Your task to perform on an android device: check battery use Image 0: 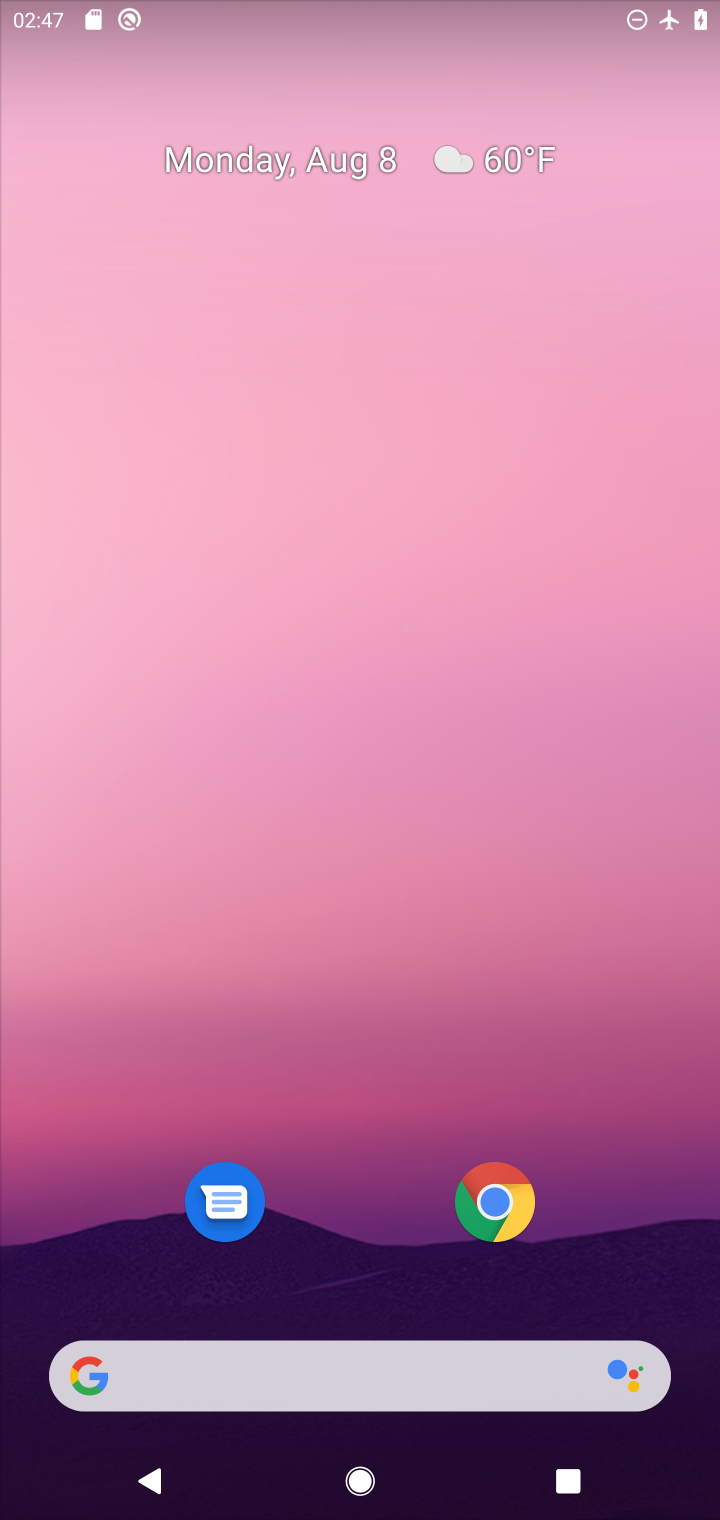
Step 0: press home button
Your task to perform on an android device: check battery use Image 1: 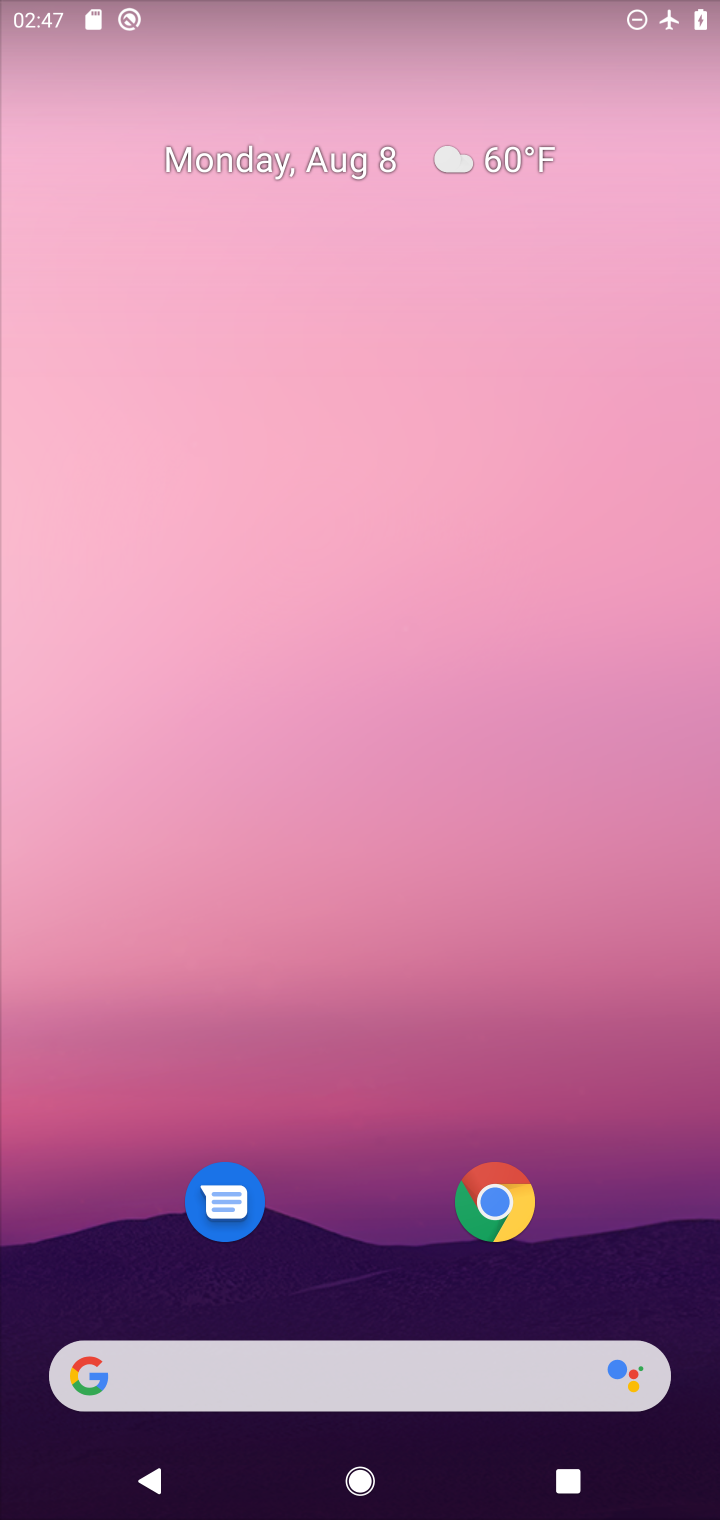
Step 1: drag from (622, 1010) to (653, 297)
Your task to perform on an android device: check battery use Image 2: 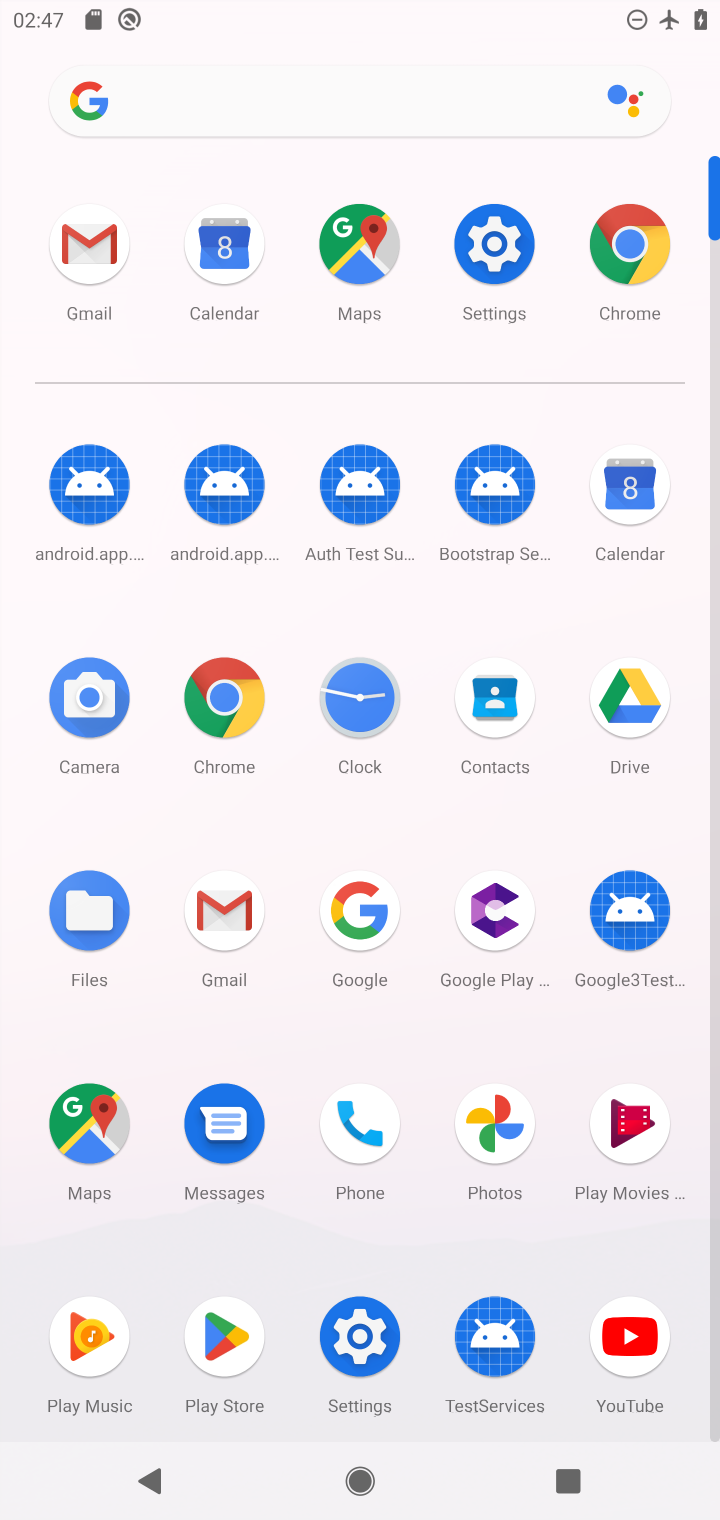
Step 2: click (470, 233)
Your task to perform on an android device: check battery use Image 3: 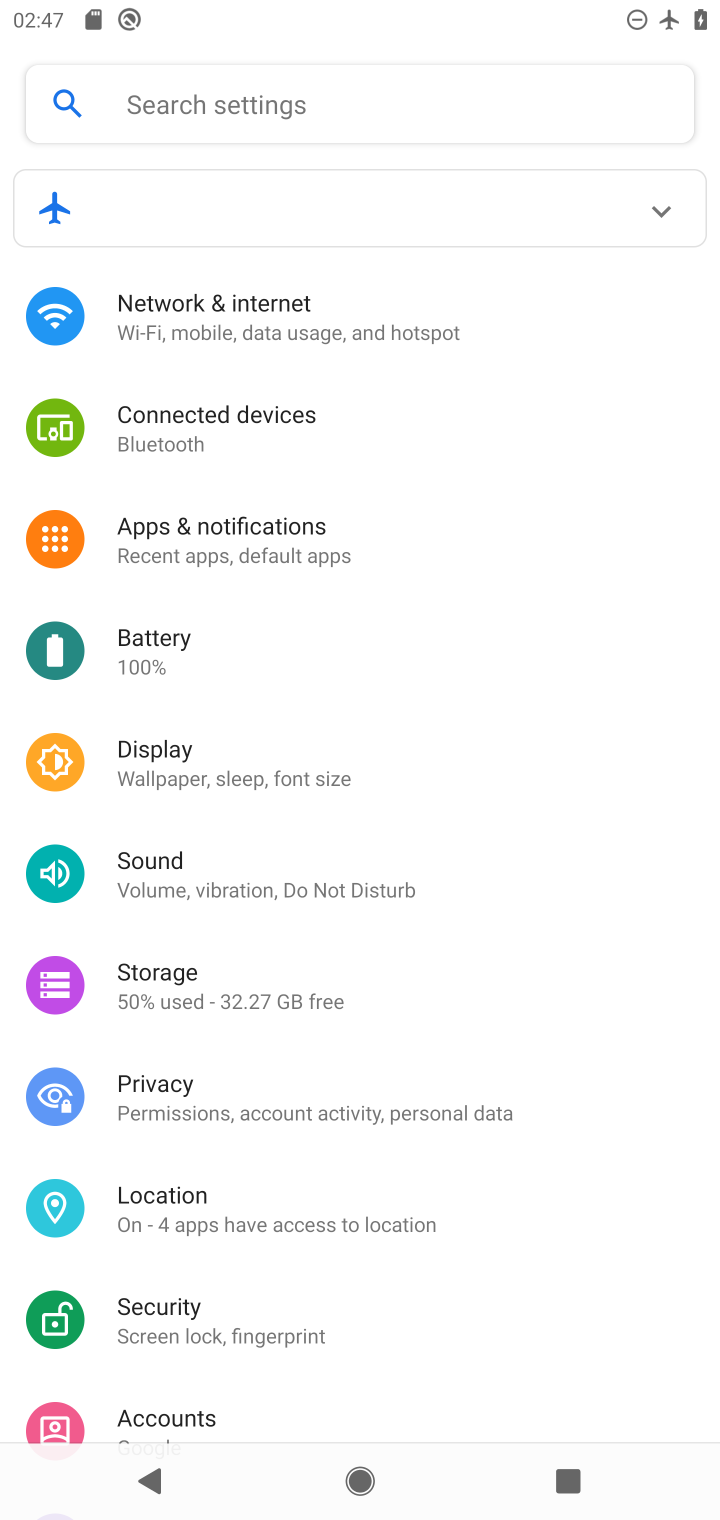
Step 3: drag from (580, 592) to (583, 458)
Your task to perform on an android device: check battery use Image 4: 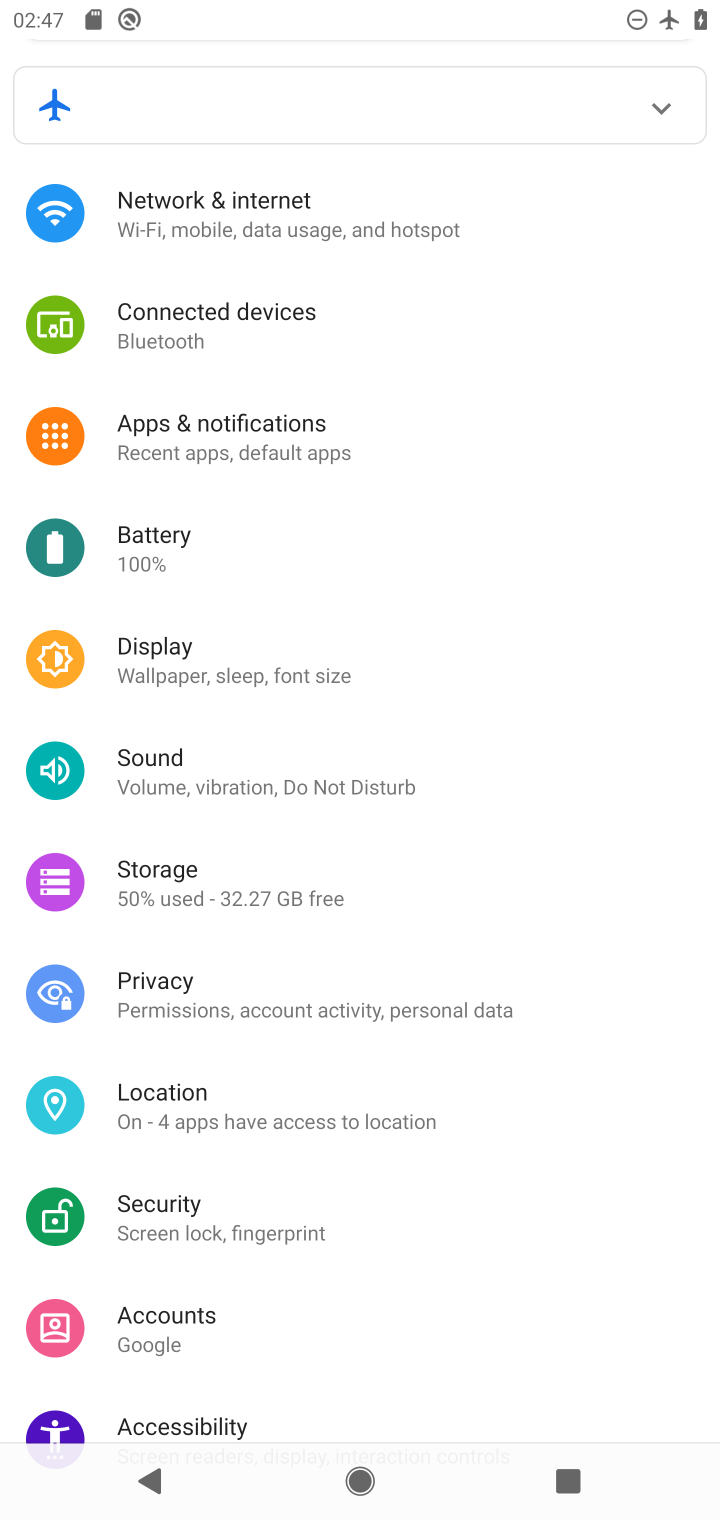
Step 4: drag from (590, 634) to (616, 447)
Your task to perform on an android device: check battery use Image 5: 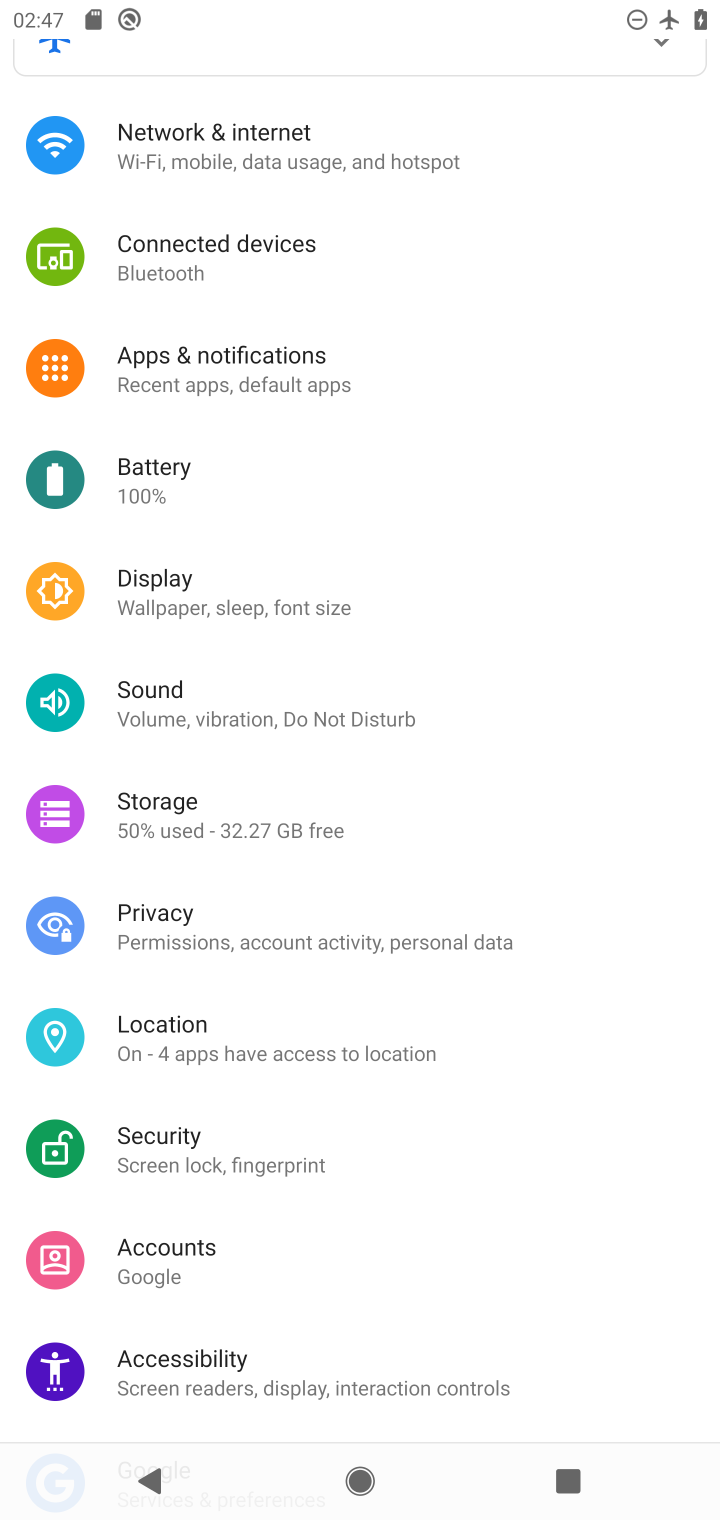
Step 5: drag from (571, 772) to (603, 234)
Your task to perform on an android device: check battery use Image 6: 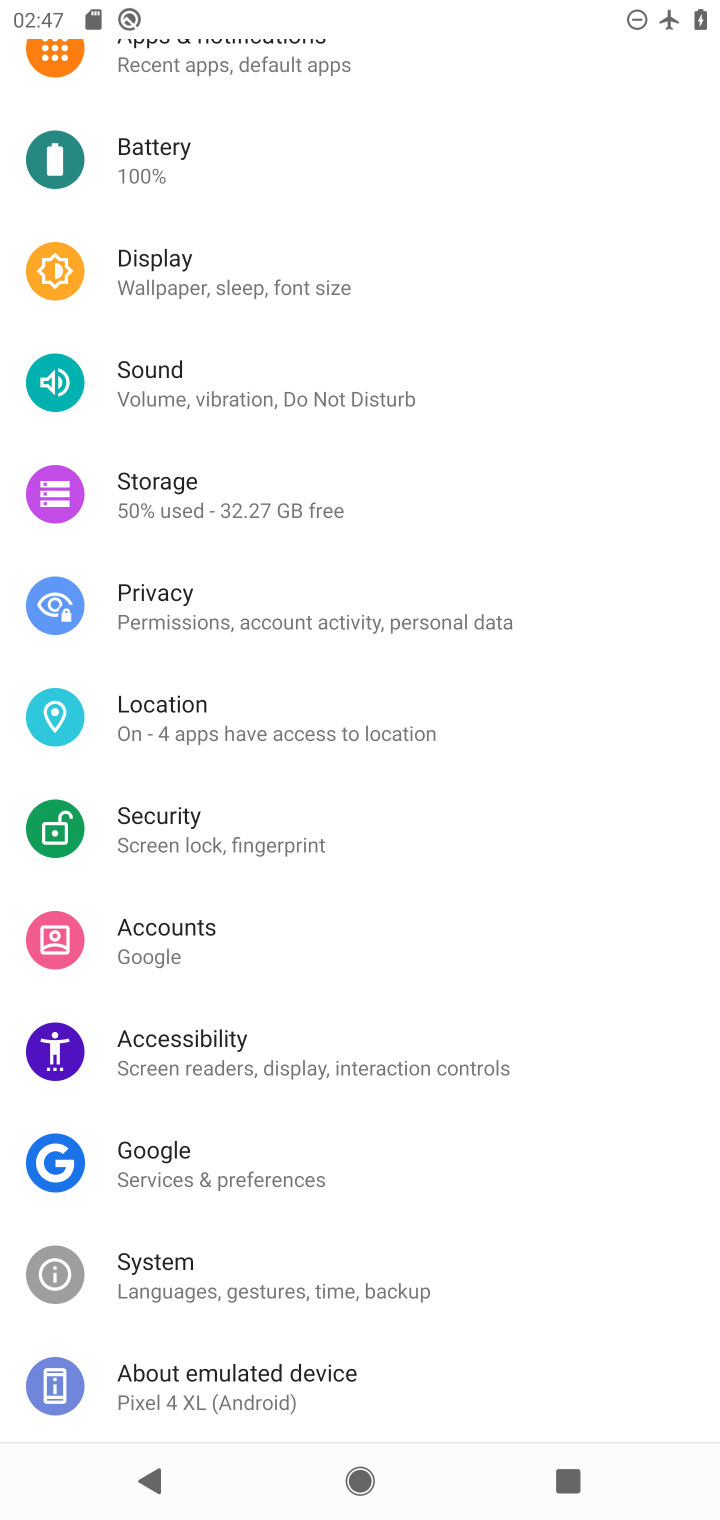
Step 6: drag from (579, 369) to (587, 152)
Your task to perform on an android device: check battery use Image 7: 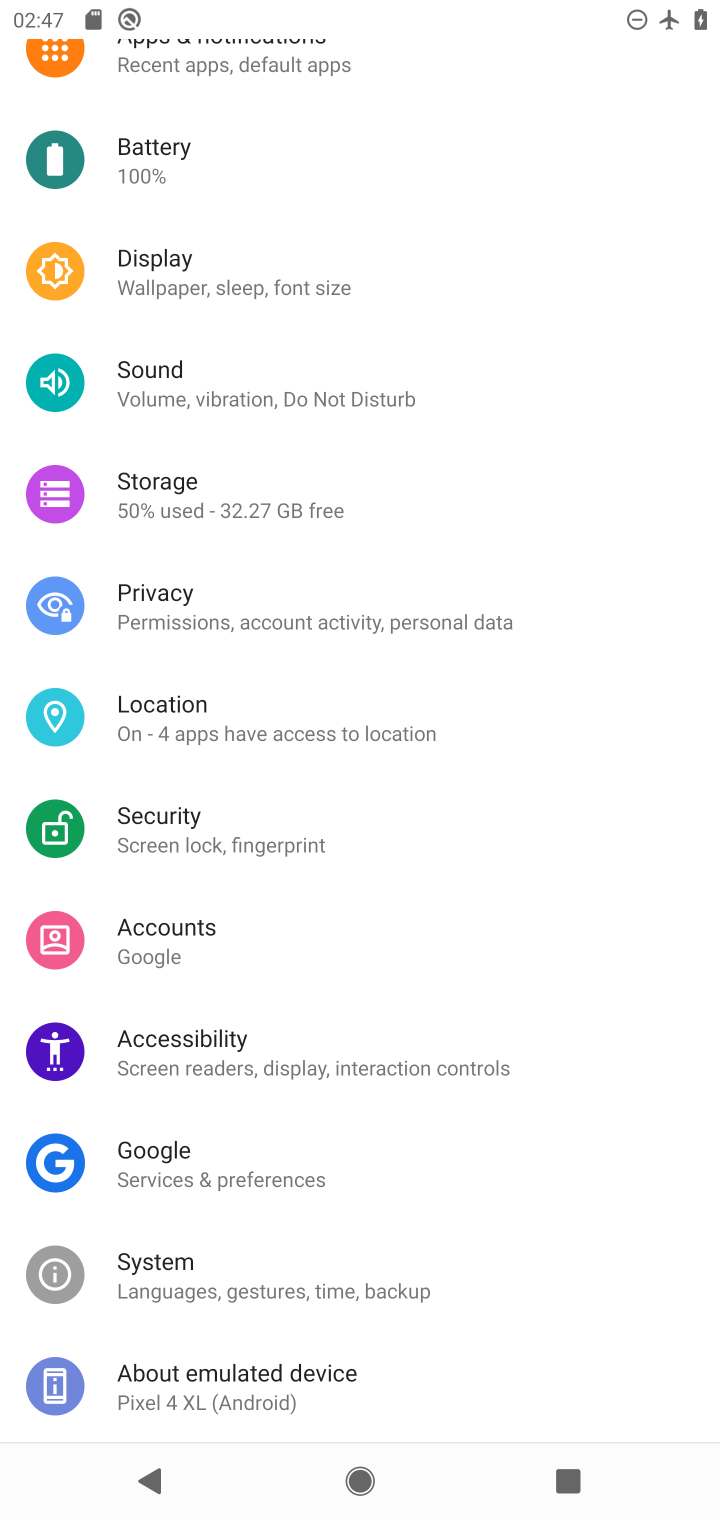
Step 7: drag from (640, 357) to (634, 722)
Your task to perform on an android device: check battery use Image 8: 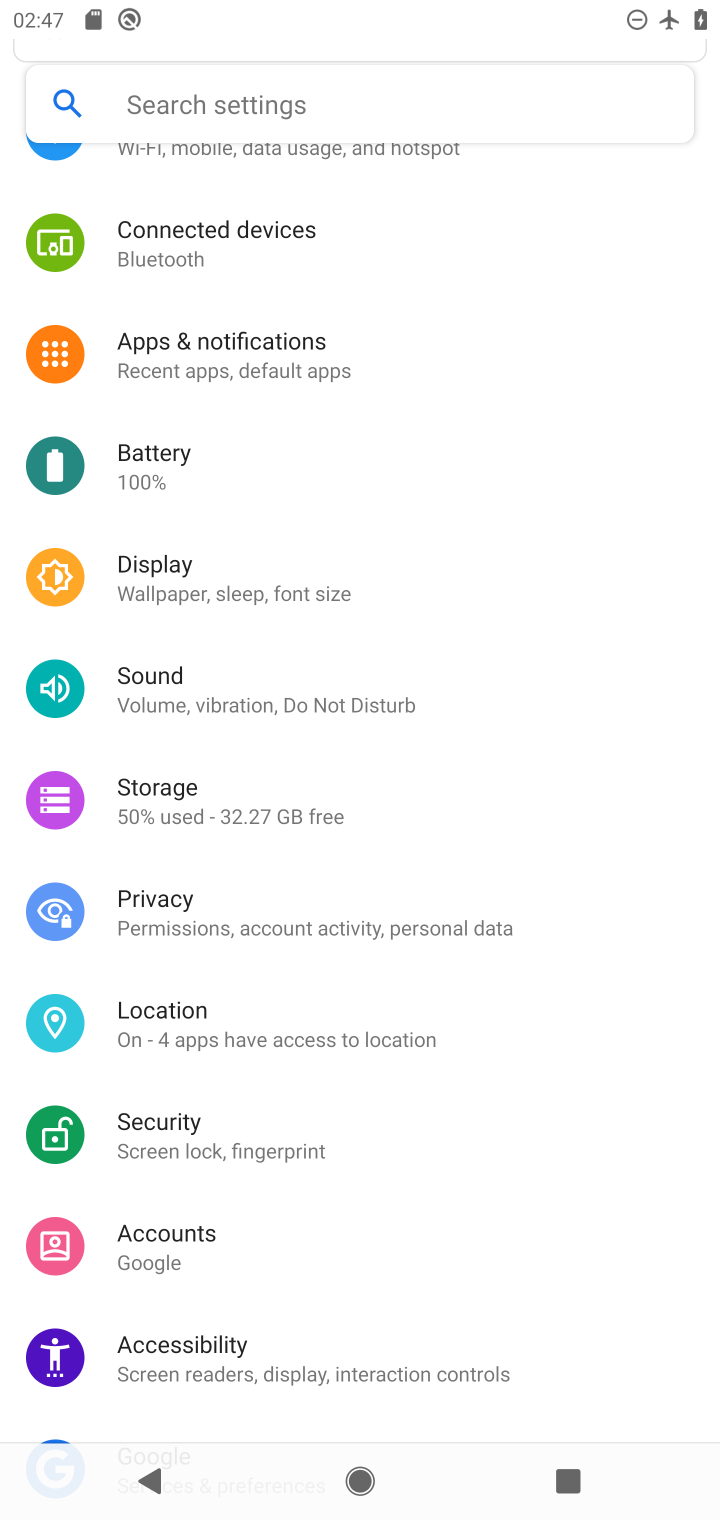
Step 8: drag from (600, 285) to (622, 667)
Your task to perform on an android device: check battery use Image 9: 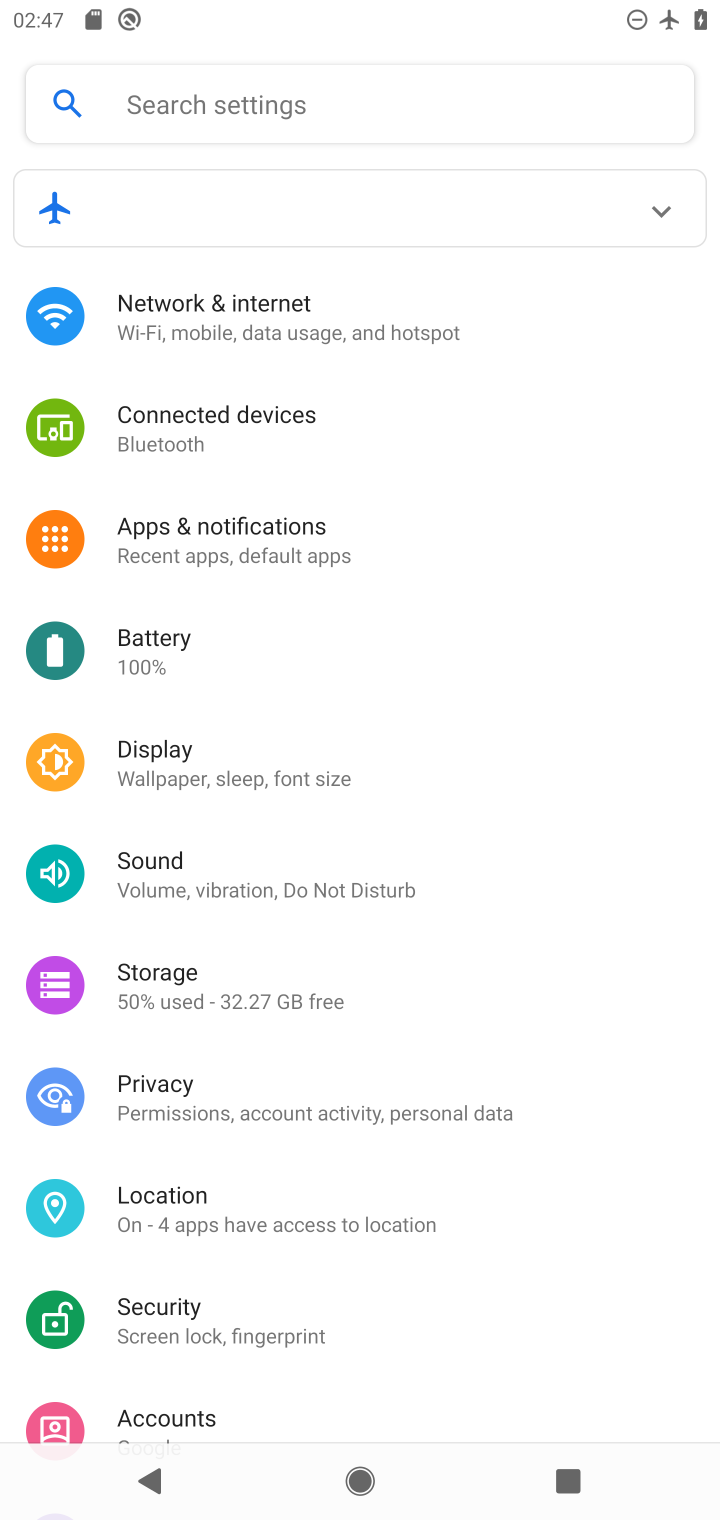
Step 9: click (290, 651)
Your task to perform on an android device: check battery use Image 10: 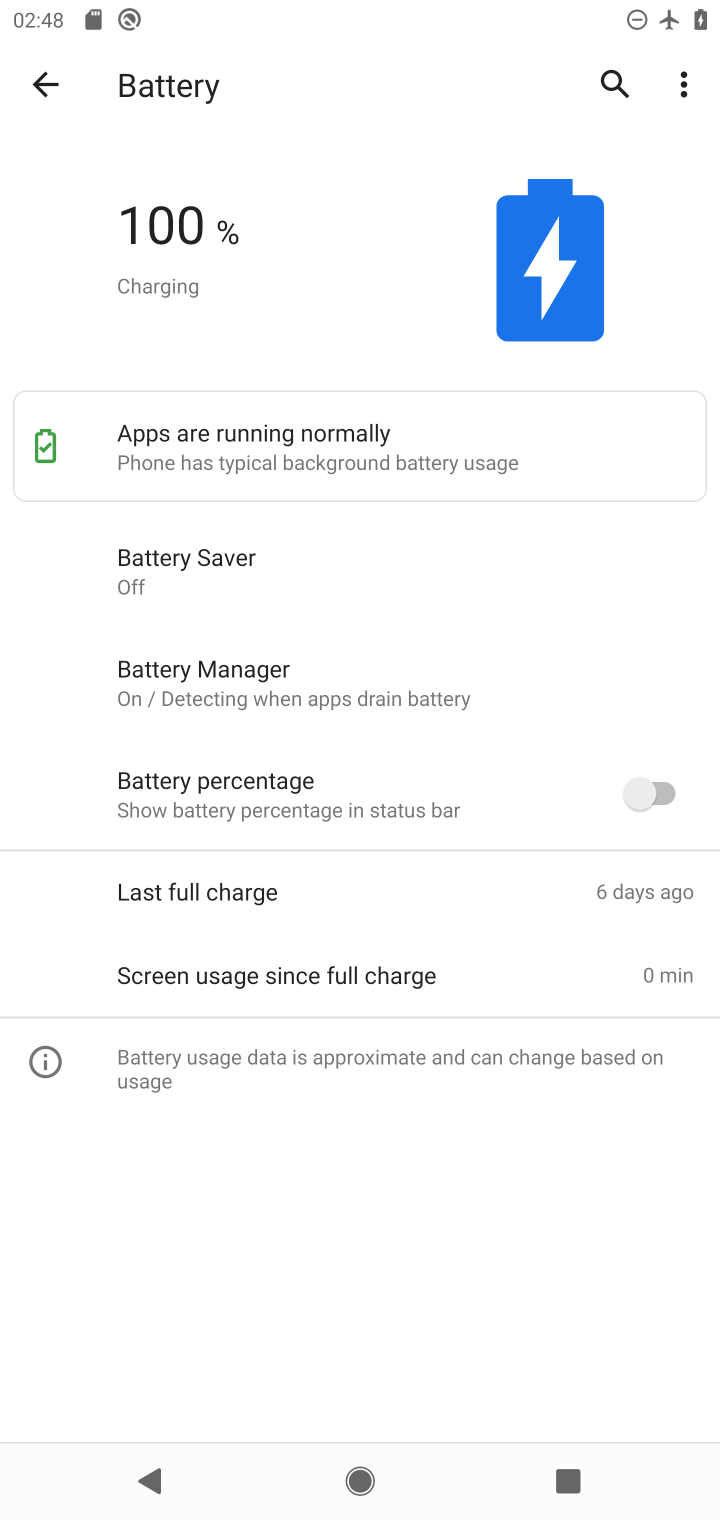
Step 10: click (676, 87)
Your task to perform on an android device: check battery use Image 11: 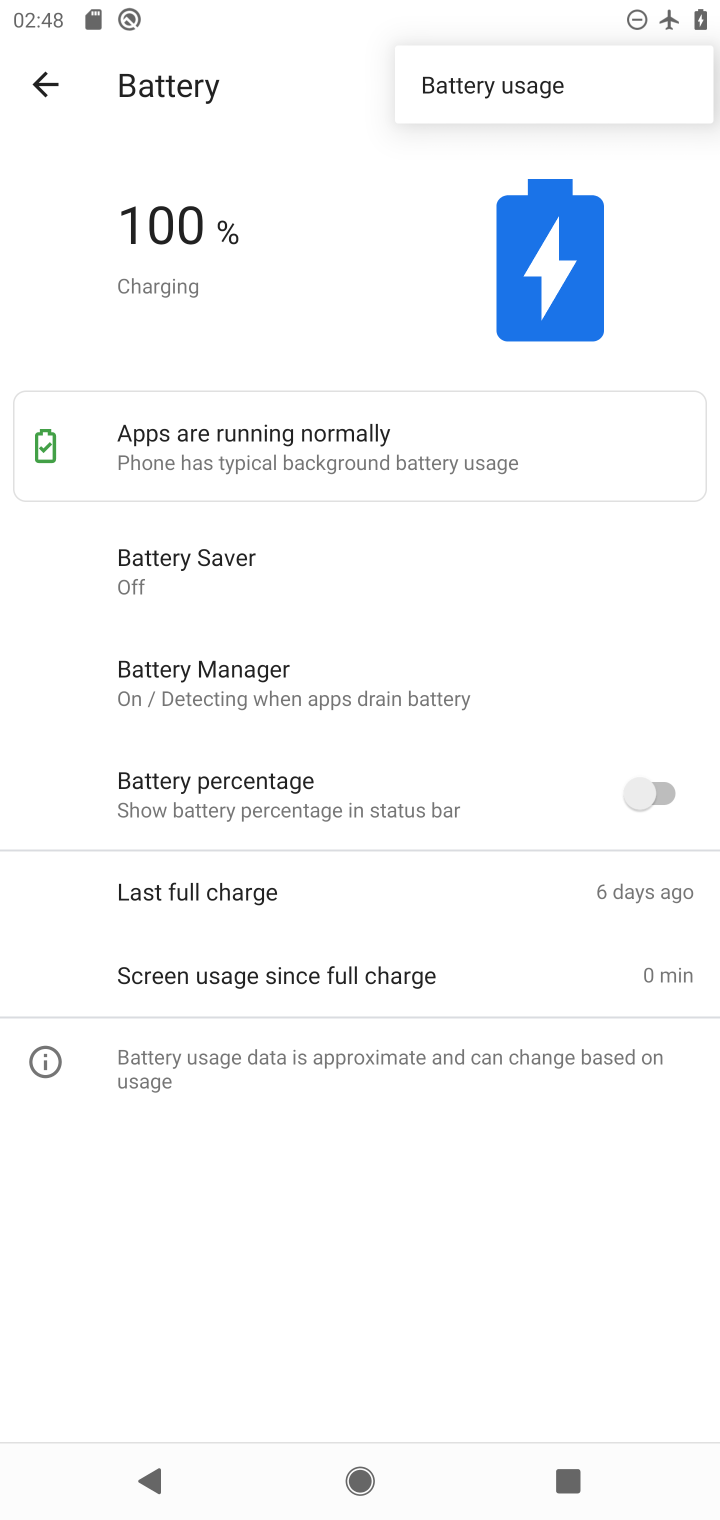
Step 11: click (542, 86)
Your task to perform on an android device: check battery use Image 12: 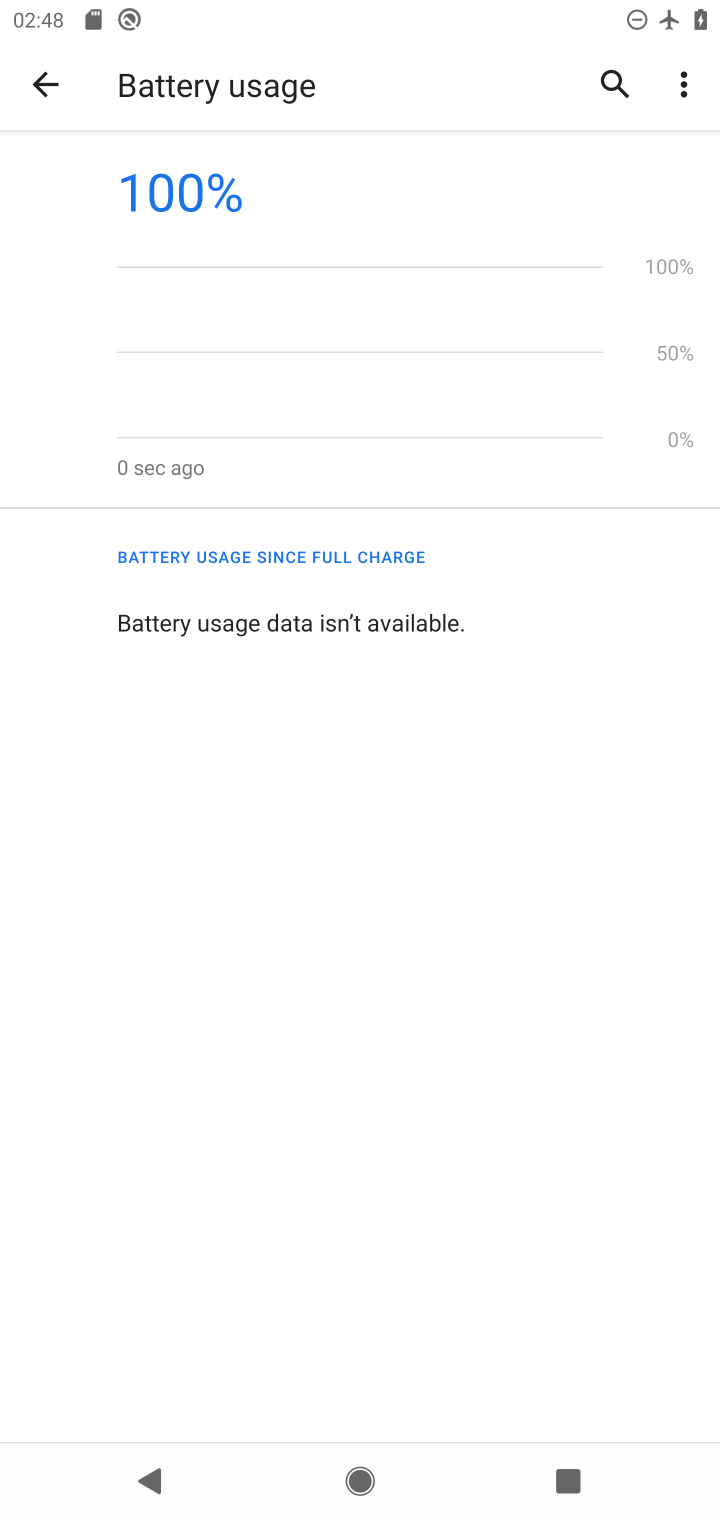
Step 12: task complete